Your task to perform on an android device: turn off location Image 0: 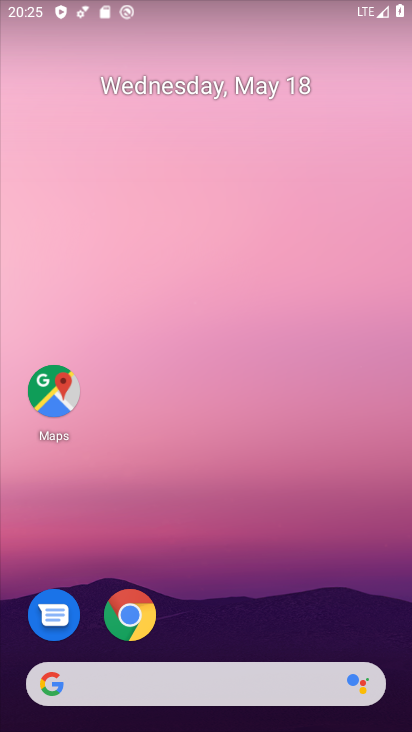
Step 0: drag from (211, 674) to (245, 112)
Your task to perform on an android device: turn off location Image 1: 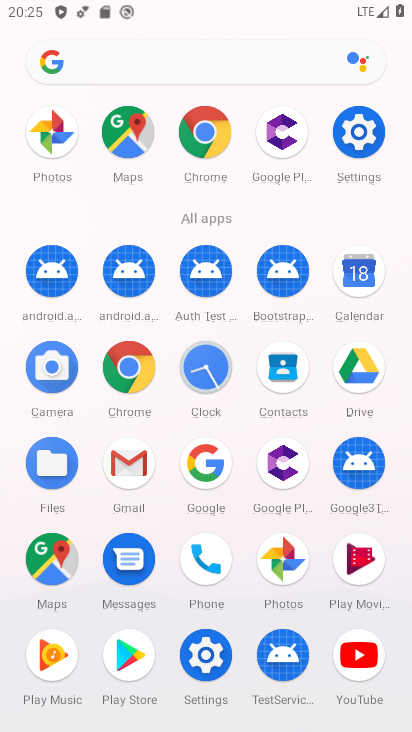
Step 1: click (361, 133)
Your task to perform on an android device: turn off location Image 2: 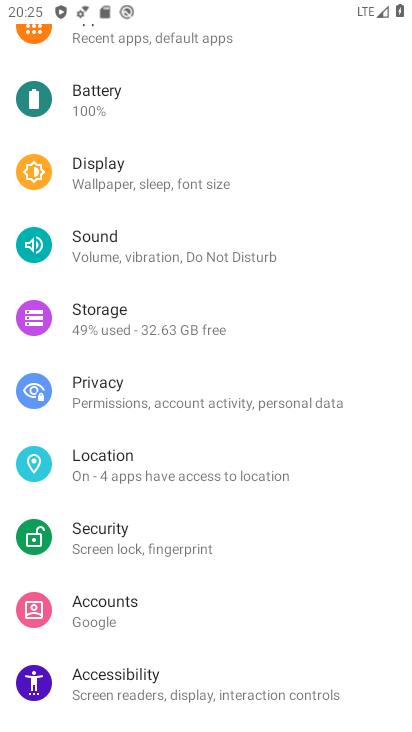
Step 2: click (123, 450)
Your task to perform on an android device: turn off location Image 3: 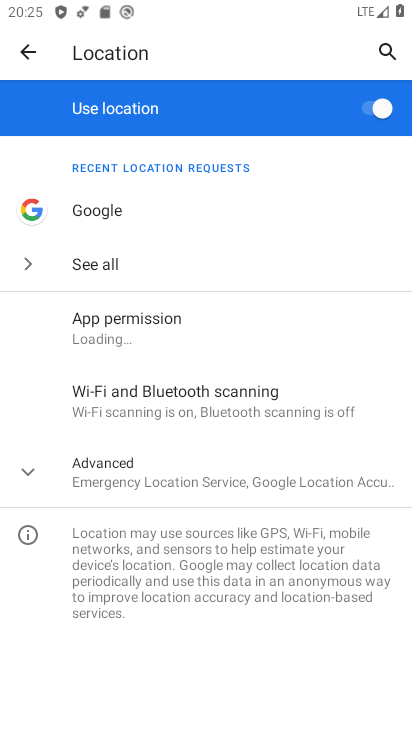
Step 3: click (361, 118)
Your task to perform on an android device: turn off location Image 4: 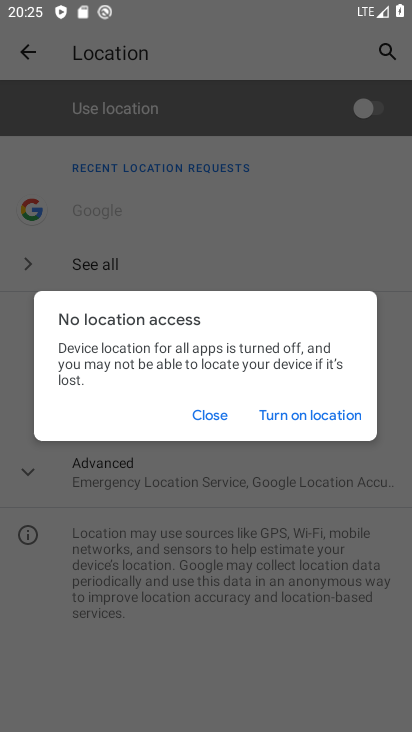
Step 4: click (214, 419)
Your task to perform on an android device: turn off location Image 5: 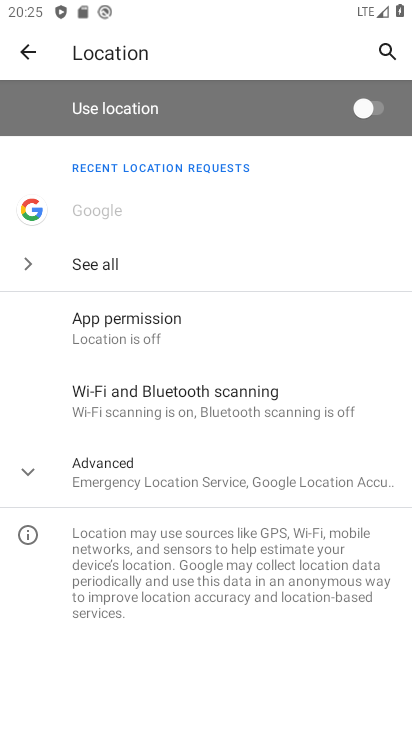
Step 5: task complete